Your task to perform on an android device: Do I have any events tomorrow? Image 0: 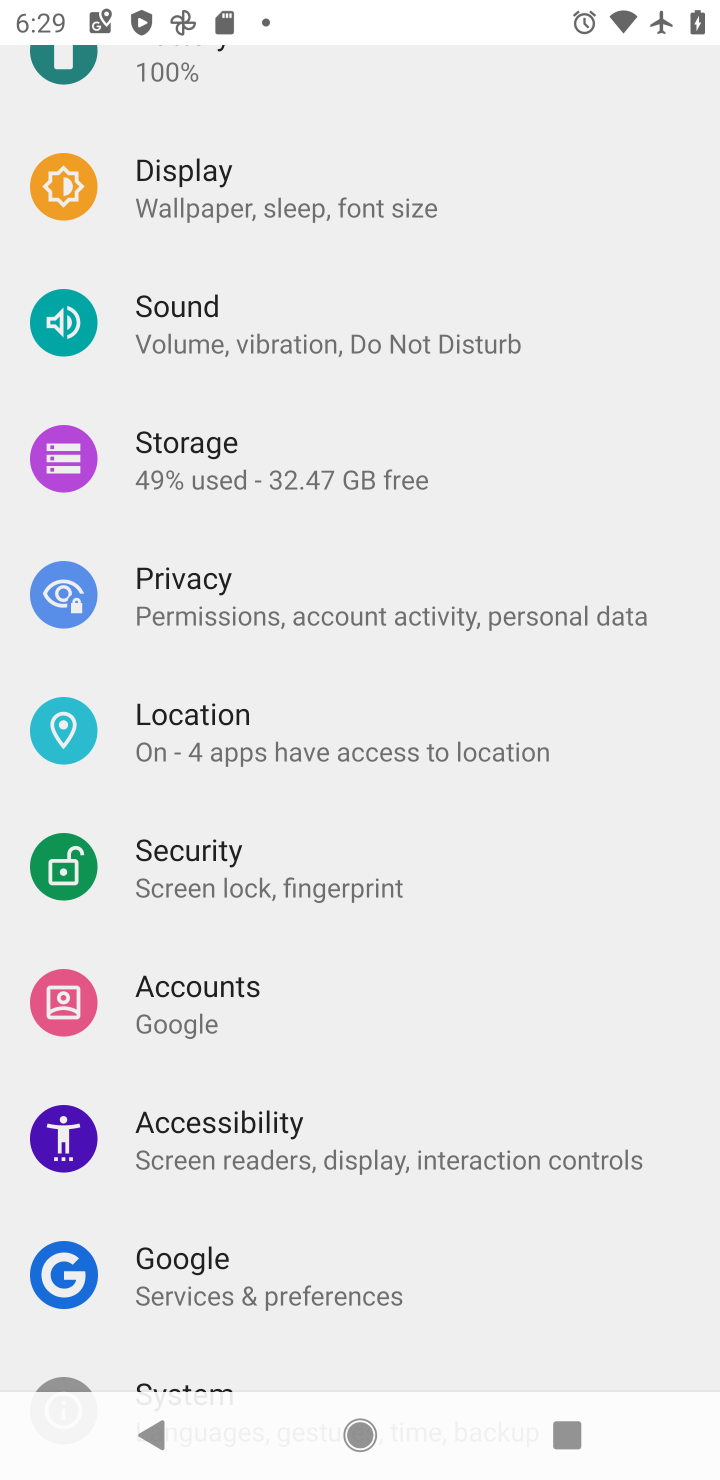
Step 0: press home button
Your task to perform on an android device: Do I have any events tomorrow? Image 1: 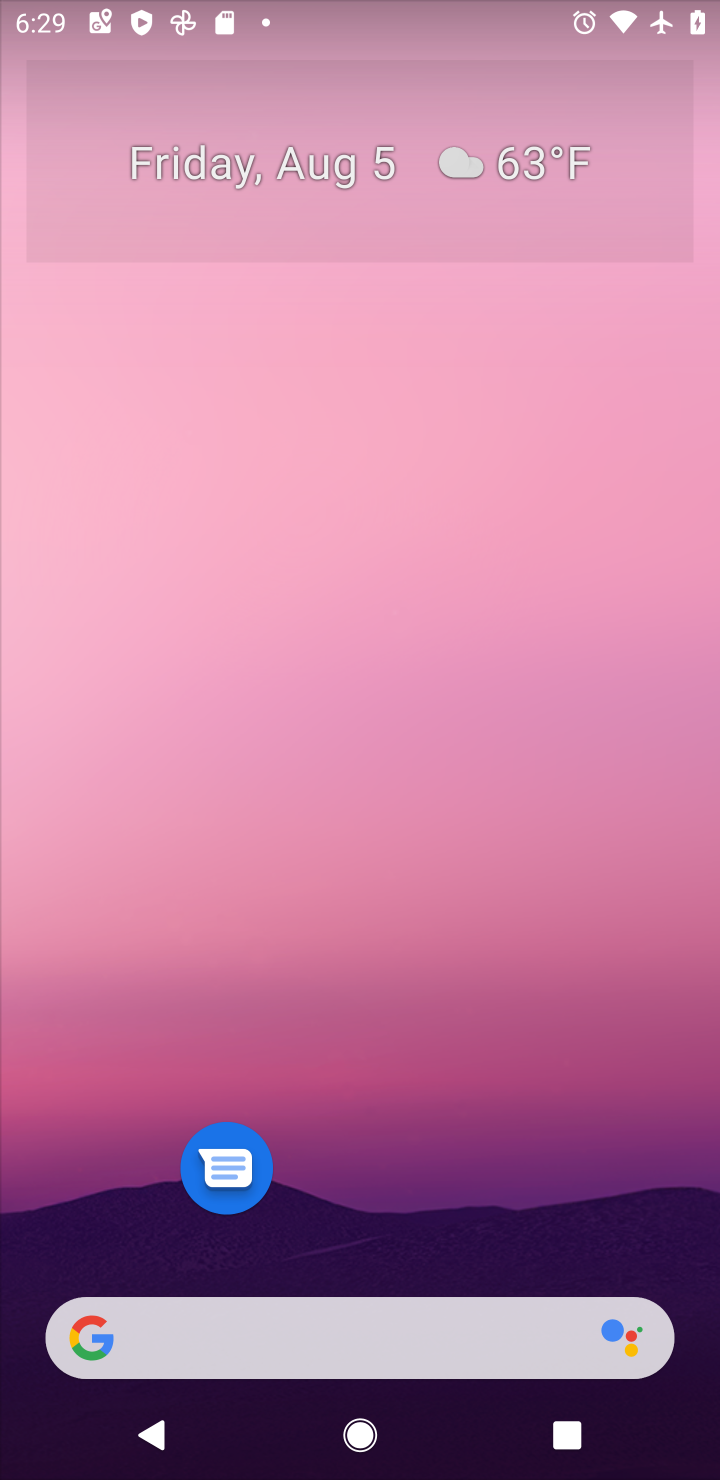
Step 1: drag from (374, 1226) to (483, 202)
Your task to perform on an android device: Do I have any events tomorrow? Image 2: 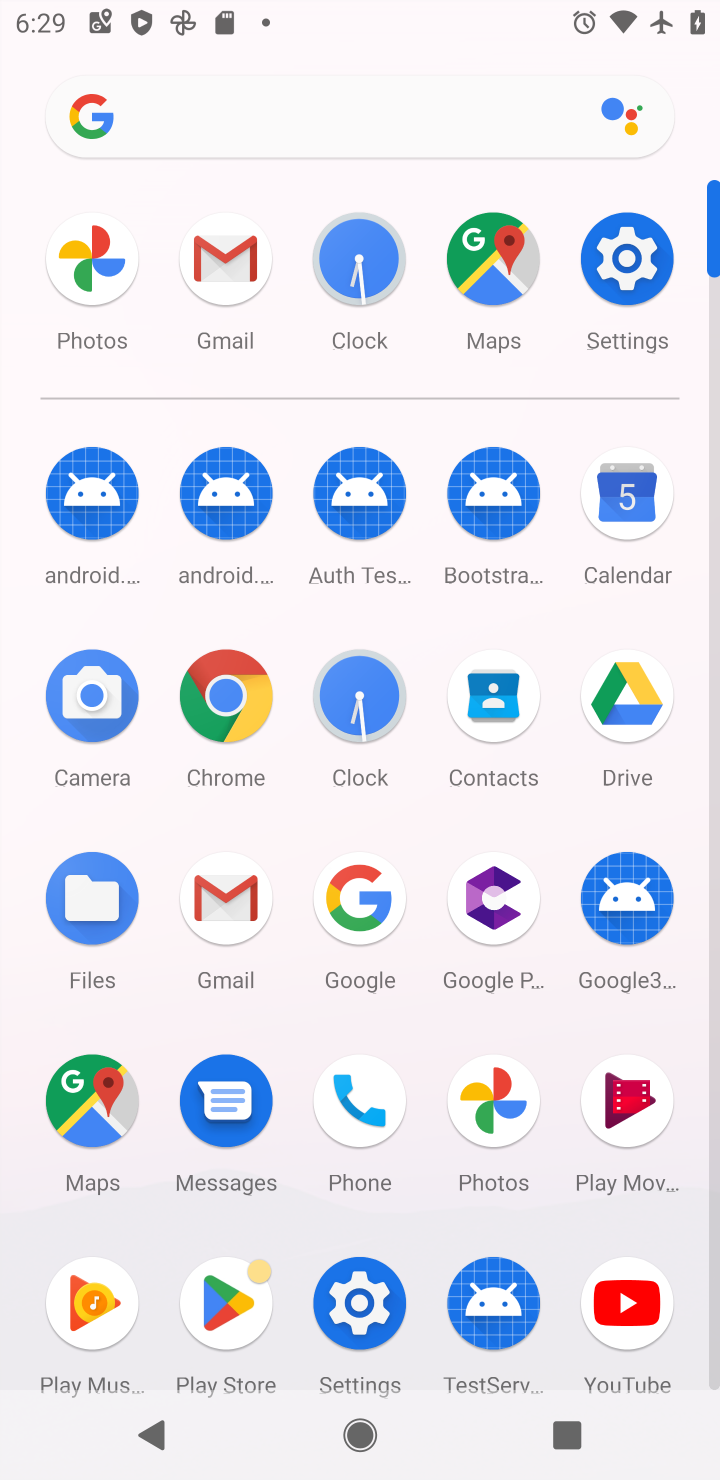
Step 2: click (618, 503)
Your task to perform on an android device: Do I have any events tomorrow? Image 3: 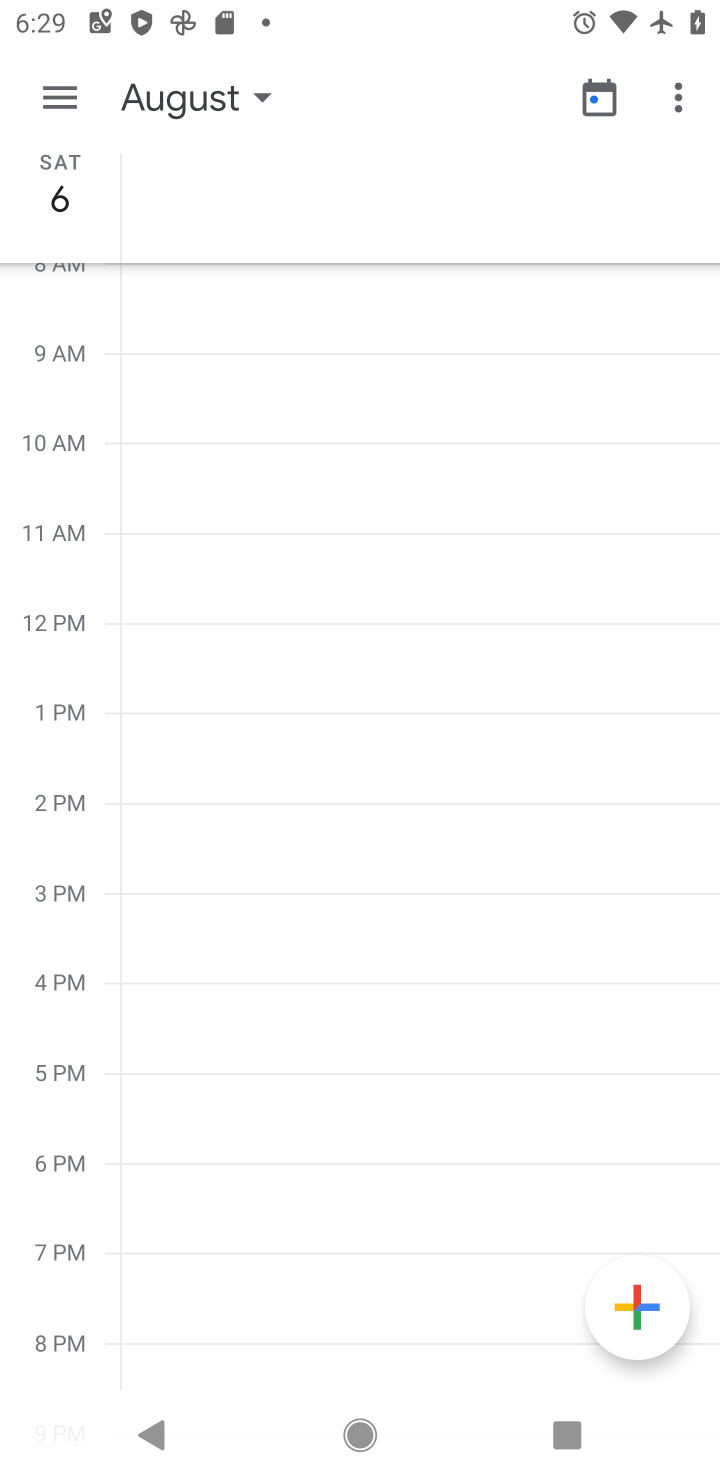
Step 3: click (252, 95)
Your task to perform on an android device: Do I have any events tomorrow? Image 4: 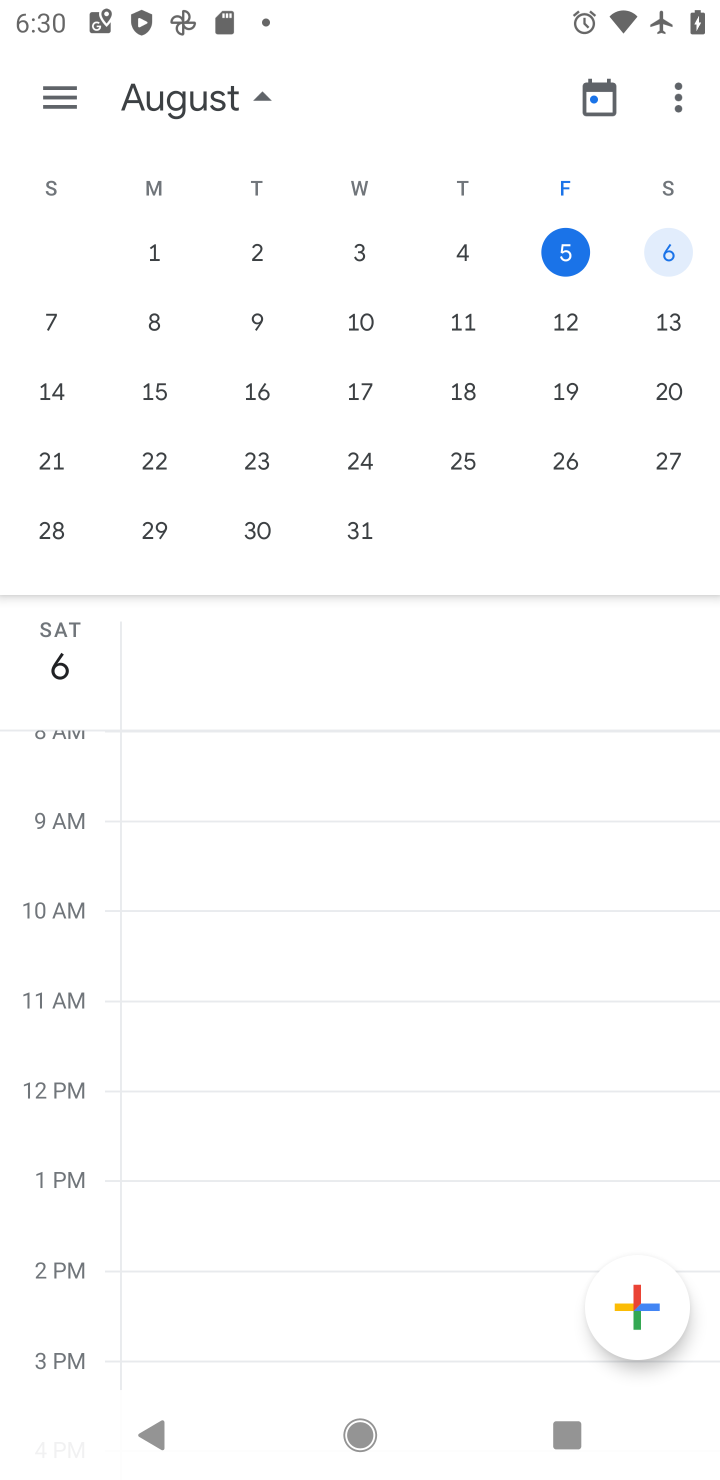
Step 4: click (662, 248)
Your task to perform on an android device: Do I have any events tomorrow? Image 5: 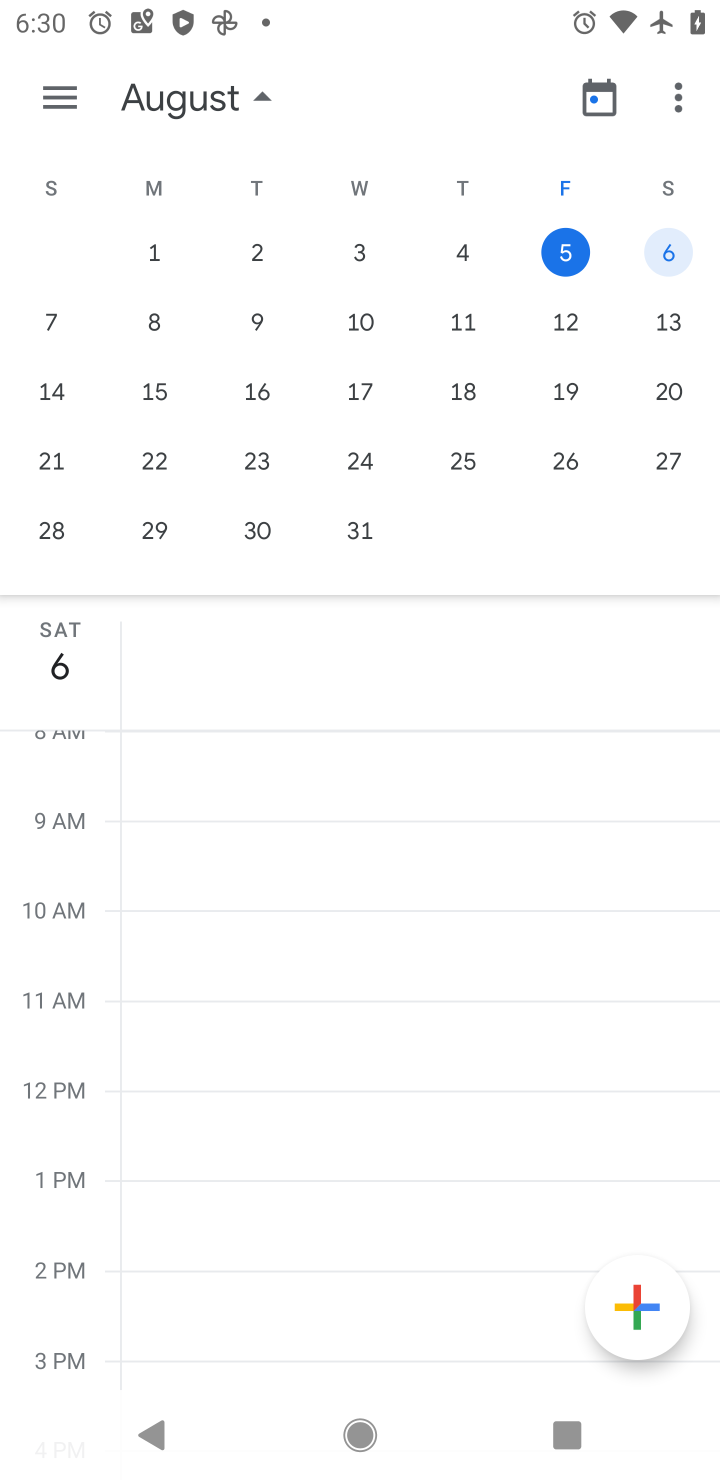
Step 5: task complete